Your task to perform on an android device: set the timer Image 0: 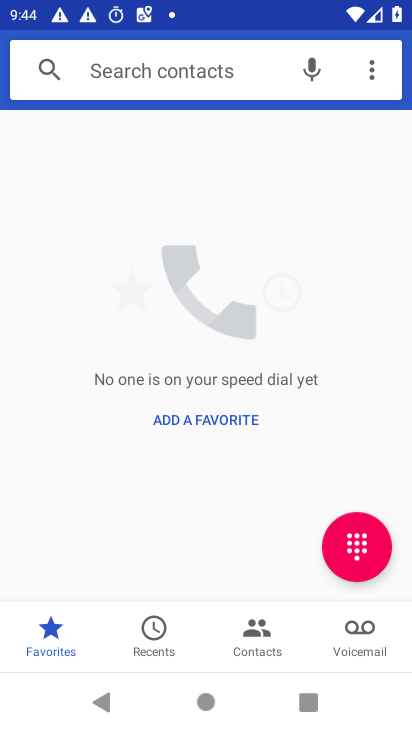
Step 0: press home button
Your task to perform on an android device: set the timer Image 1: 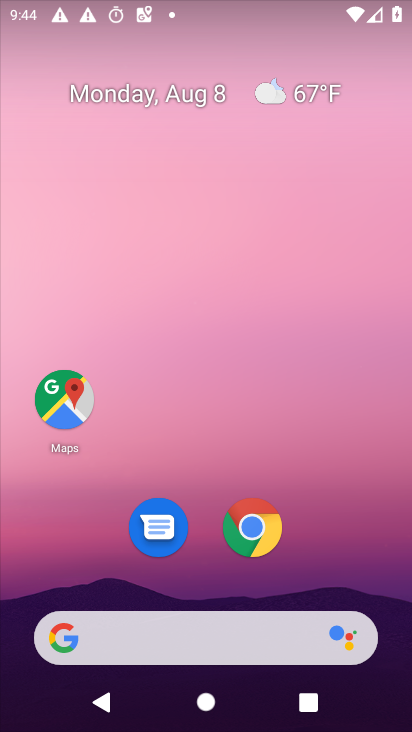
Step 1: drag from (382, 613) to (363, 48)
Your task to perform on an android device: set the timer Image 2: 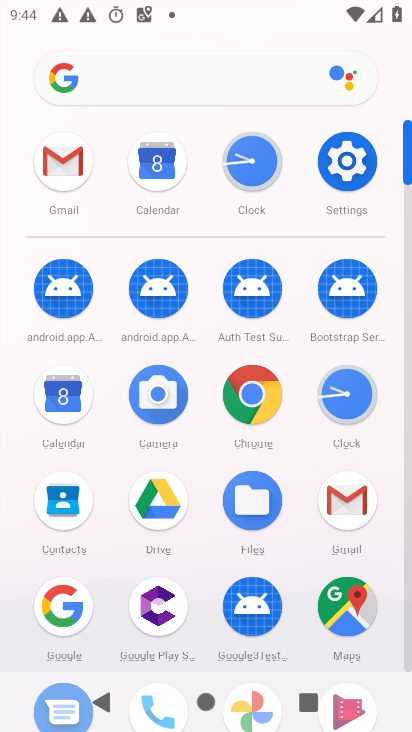
Step 2: click (242, 172)
Your task to perform on an android device: set the timer Image 3: 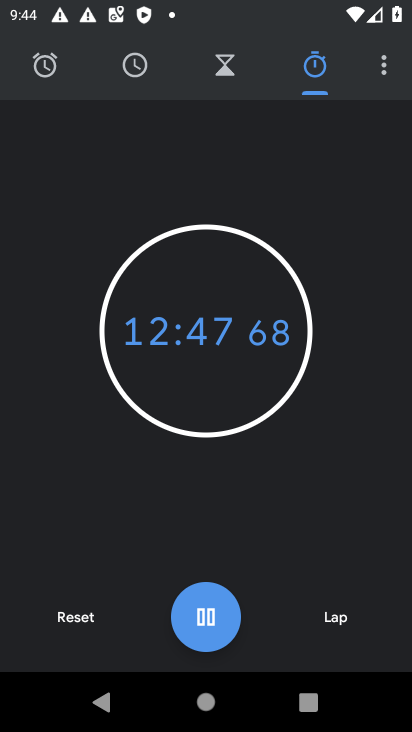
Step 3: click (79, 614)
Your task to perform on an android device: set the timer Image 4: 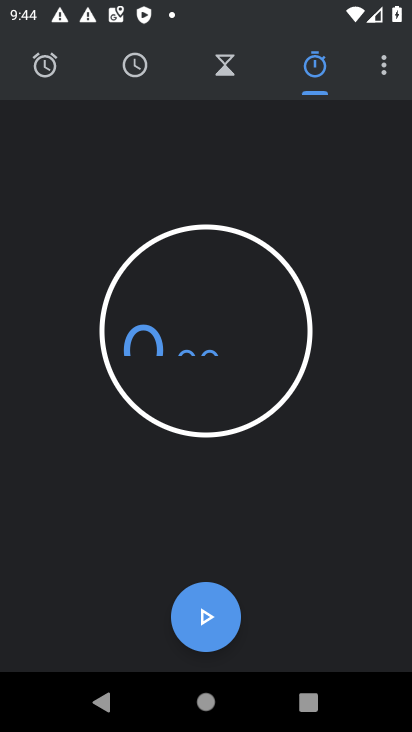
Step 4: task complete